Your task to perform on an android device: Clear the cart on costco. Image 0: 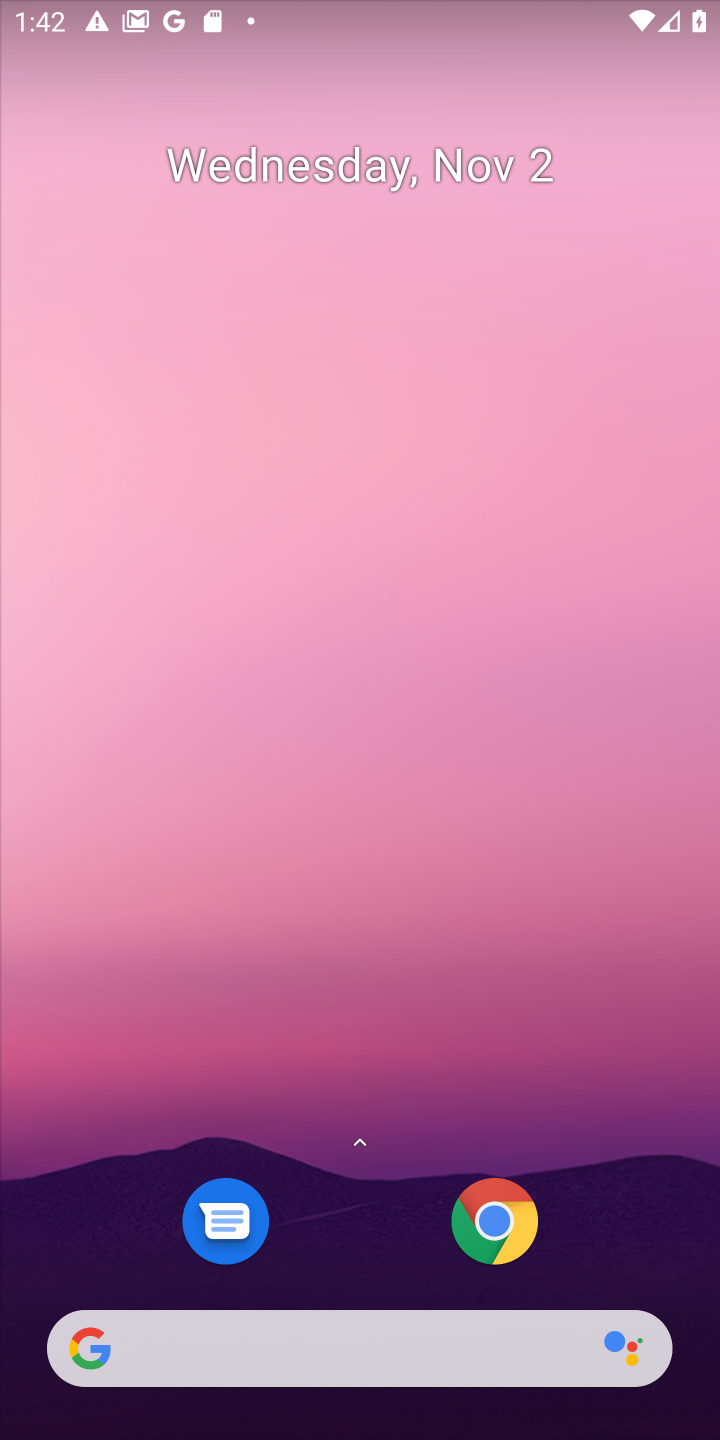
Step 0: click (396, 1367)
Your task to perform on an android device: Clear the cart on costco. Image 1: 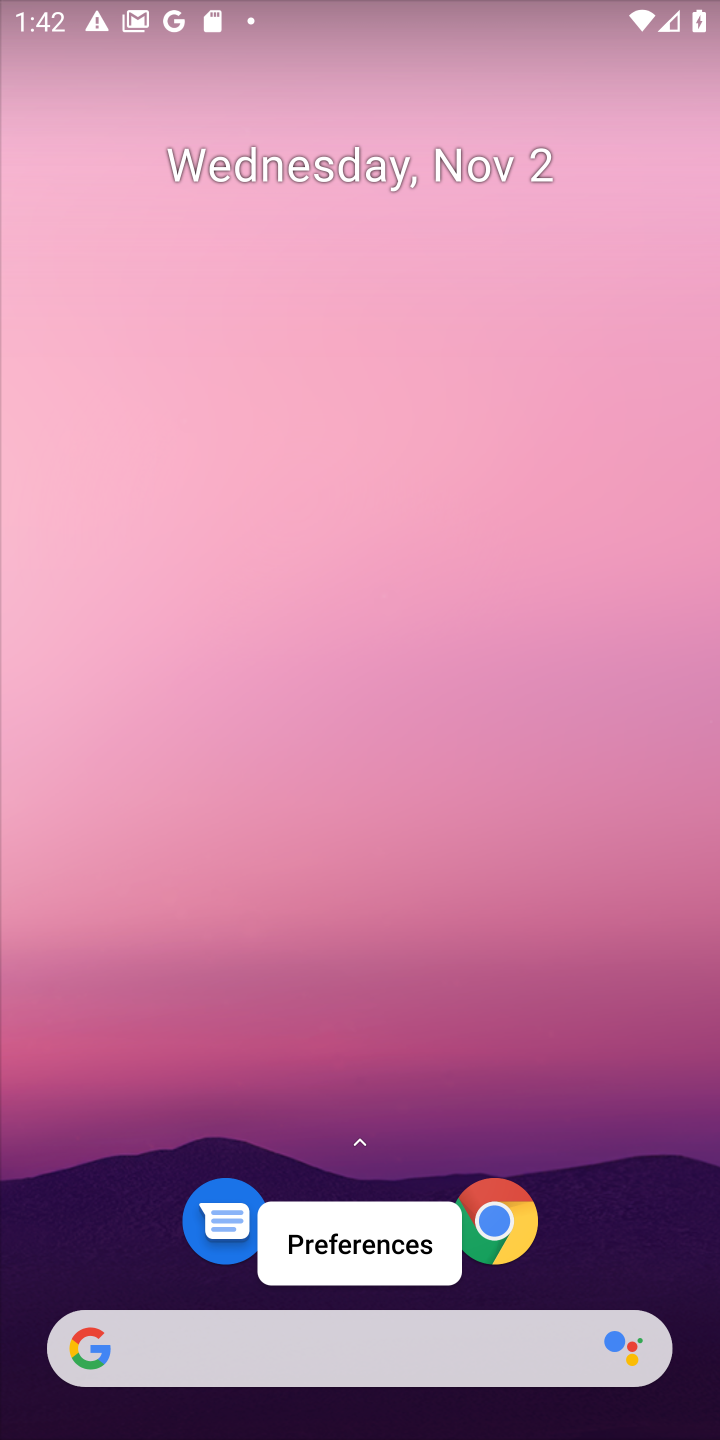
Step 1: click (339, 1357)
Your task to perform on an android device: Clear the cart on costco. Image 2: 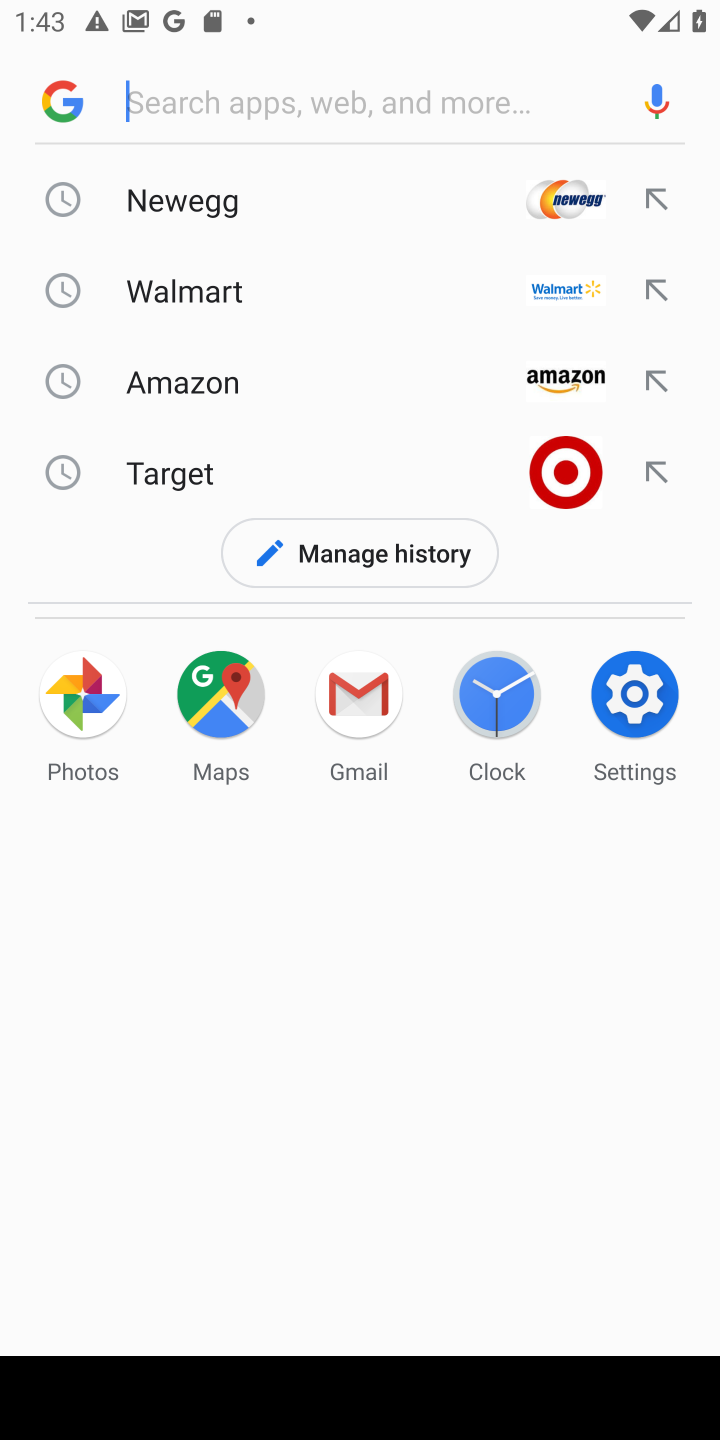
Step 2: type "costco.com"
Your task to perform on an android device: Clear the cart on costco. Image 3: 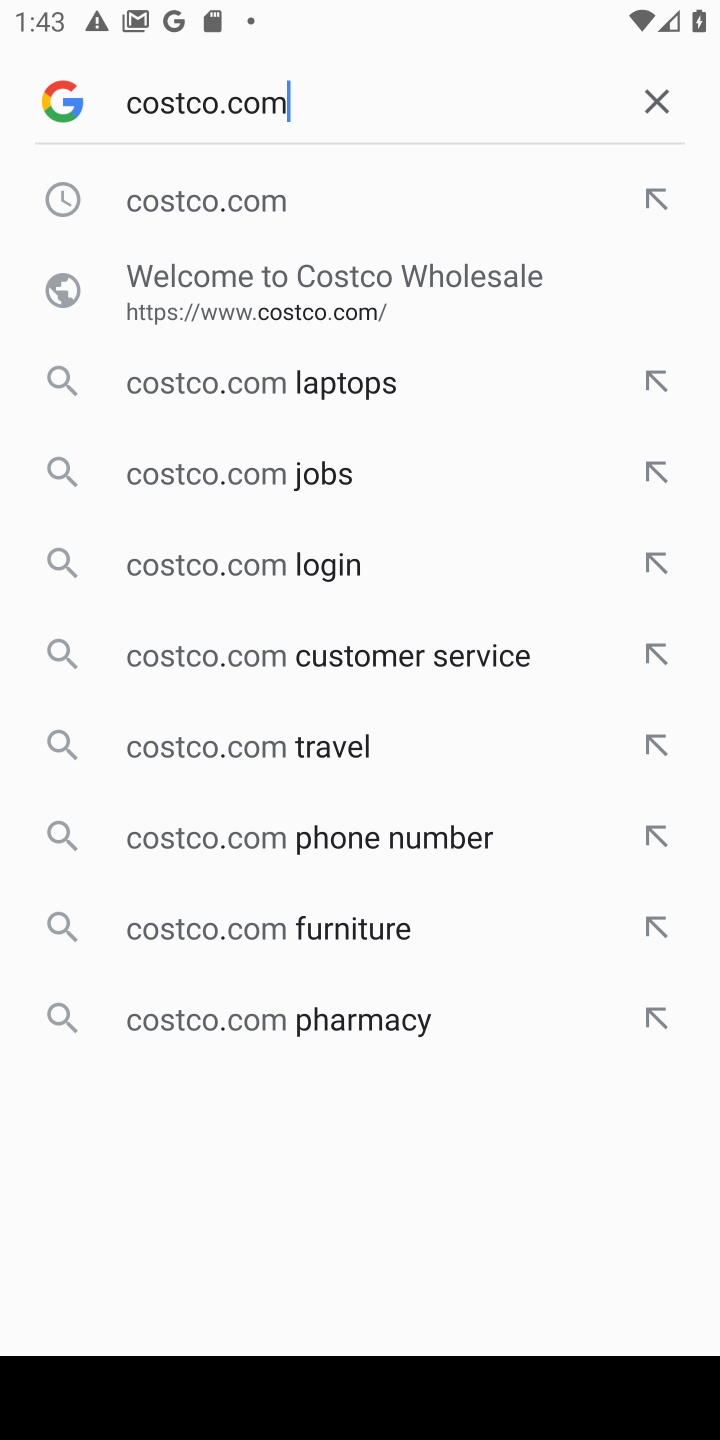
Step 3: click (287, 218)
Your task to perform on an android device: Clear the cart on costco. Image 4: 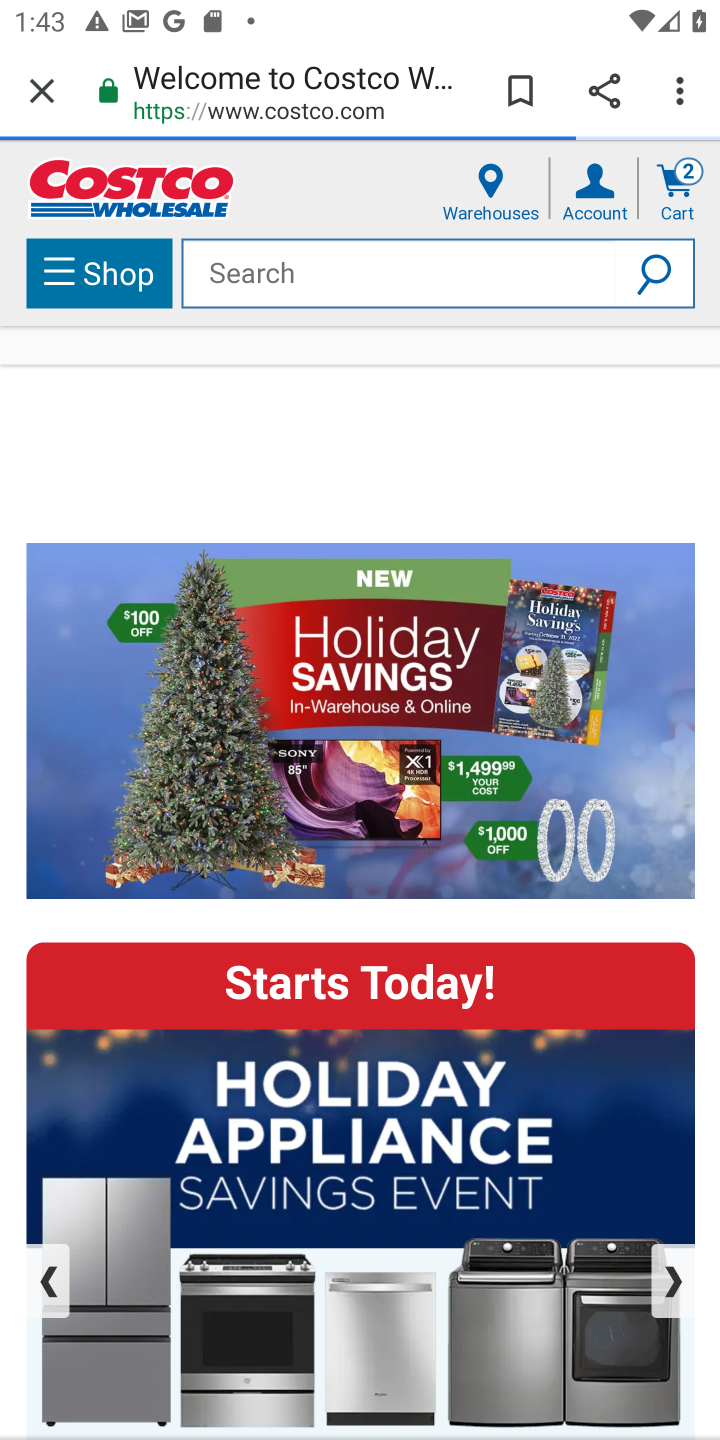
Step 4: click (687, 192)
Your task to perform on an android device: Clear the cart on costco. Image 5: 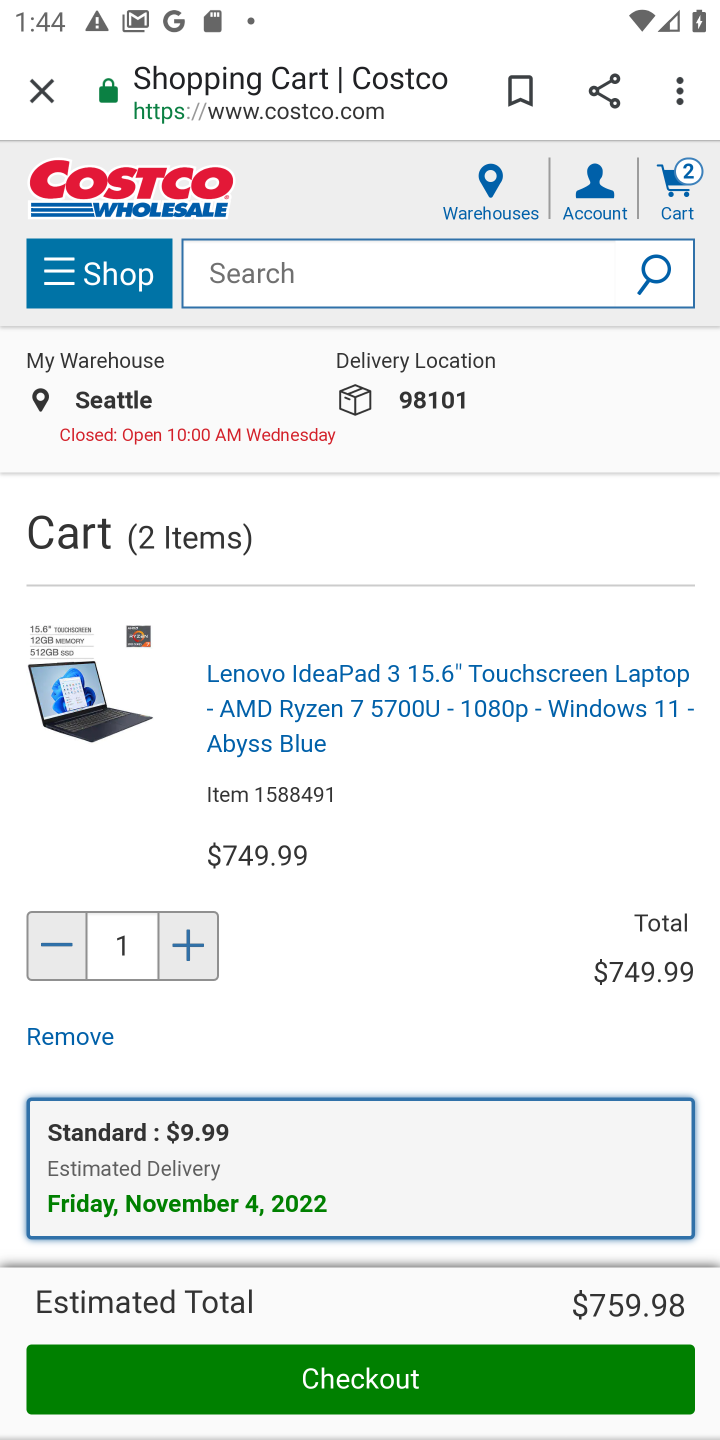
Step 5: click (49, 1047)
Your task to perform on an android device: Clear the cart on costco. Image 6: 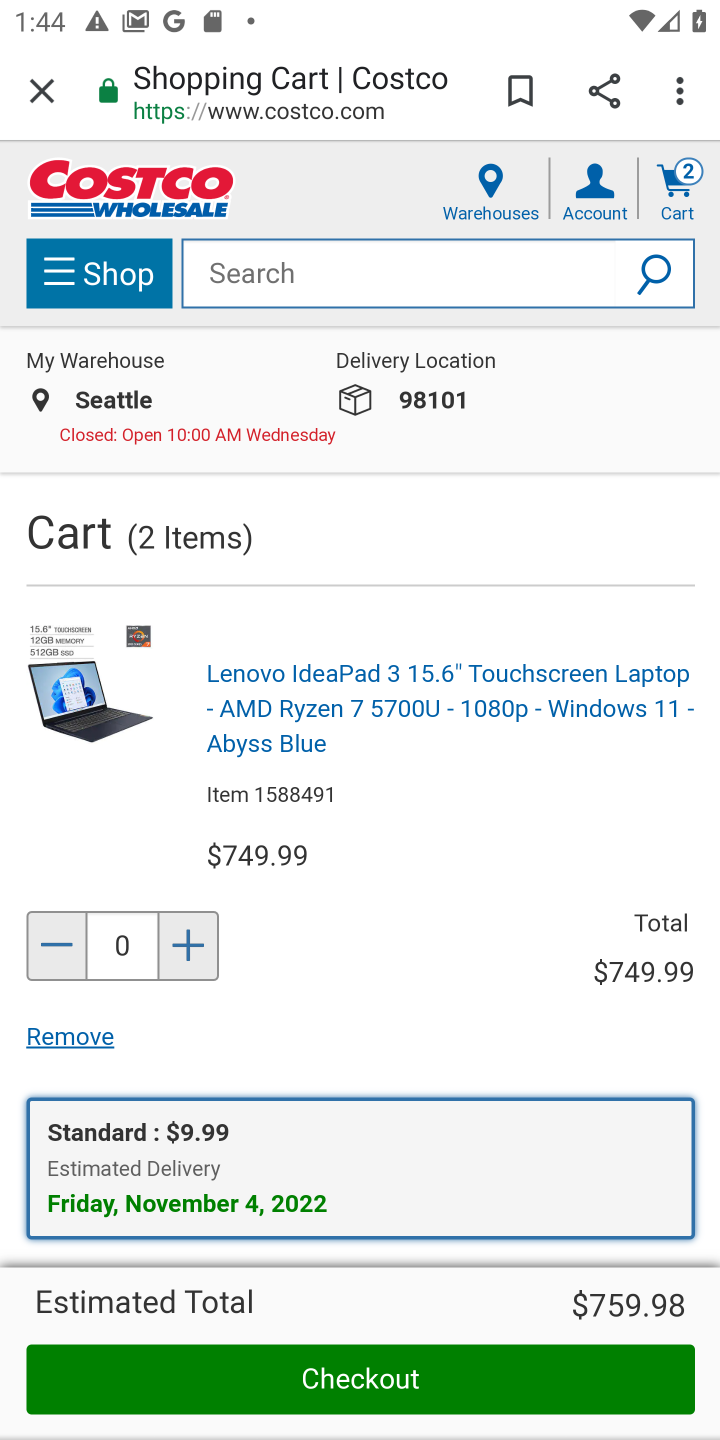
Step 6: click (49, 1047)
Your task to perform on an android device: Clear the cart on costco. Image 7: 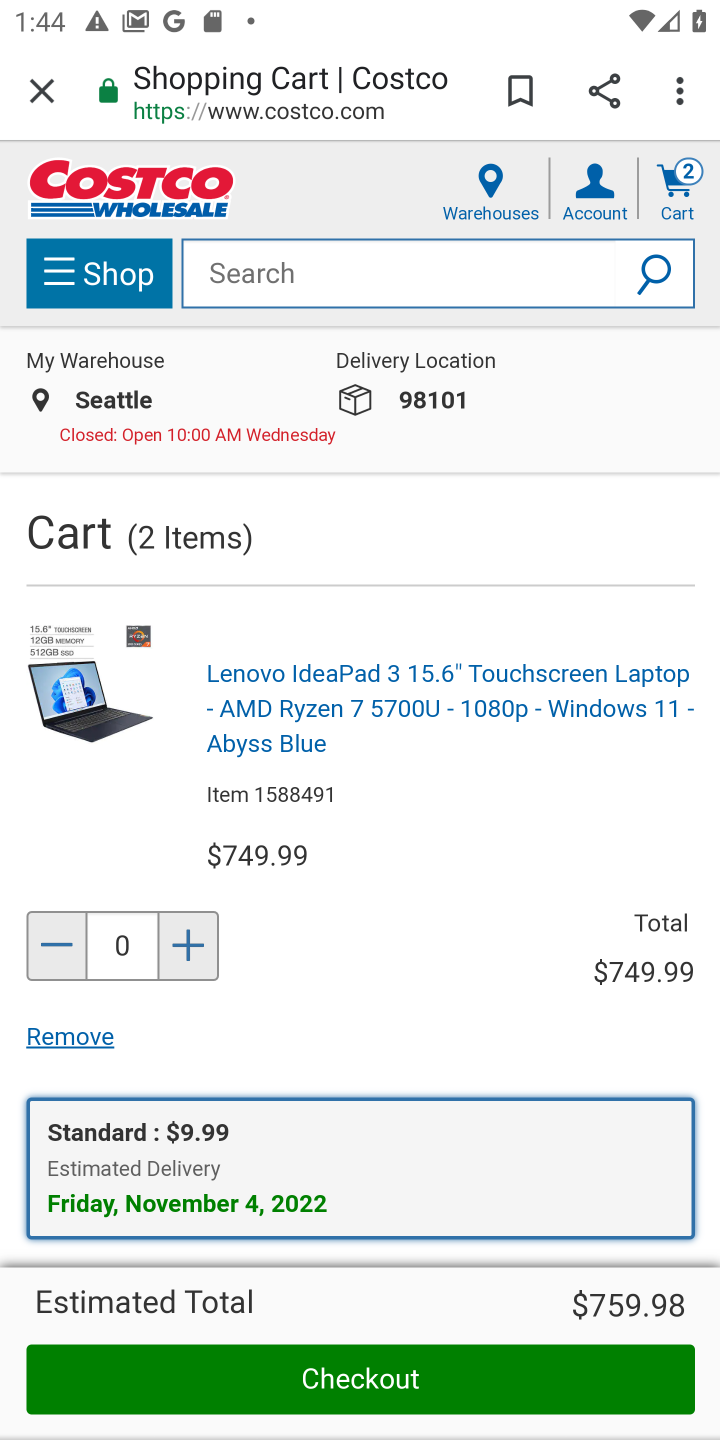
Step 7: click (66, 1034)
Your task to perform on an android device: Clear the cart on costco. Image 8: 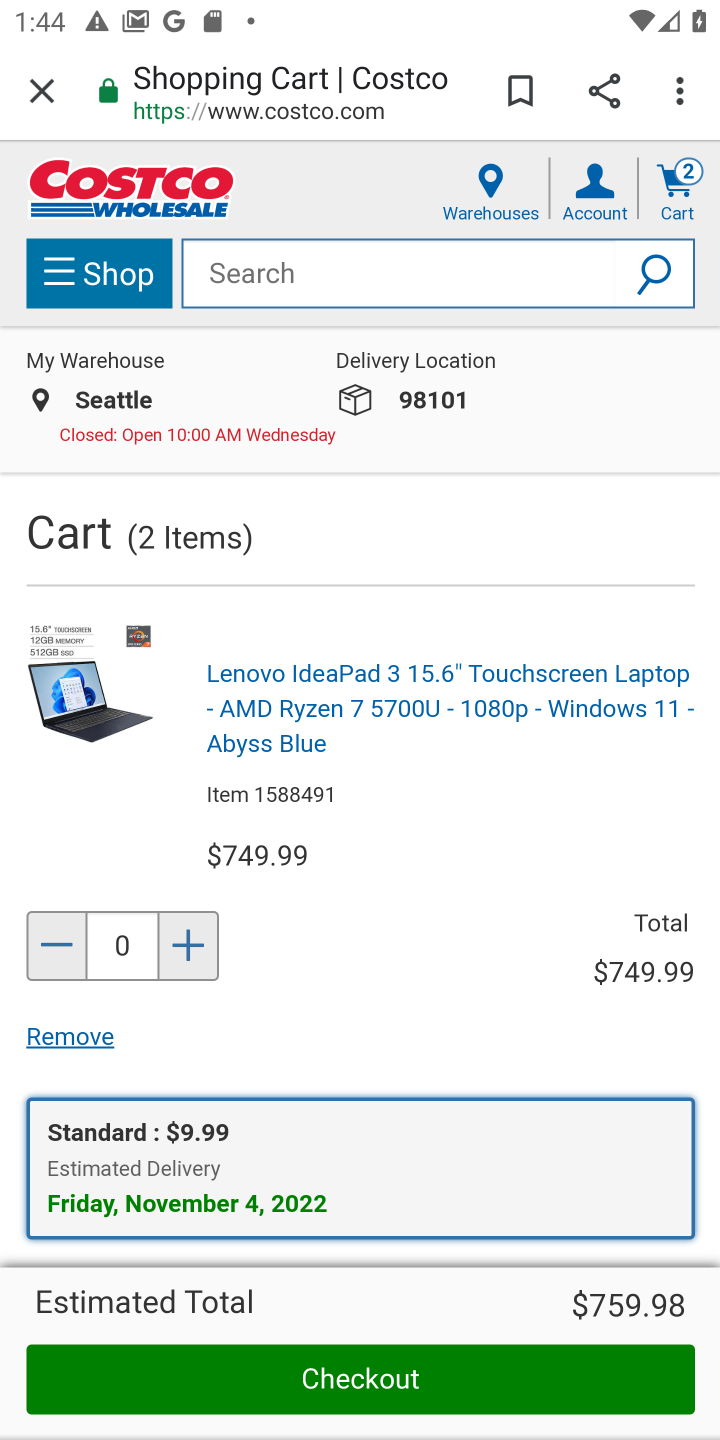
Step 8: click (66, 1034)
Your task to perform on an android device: Clear the cart on costco. Image 9: 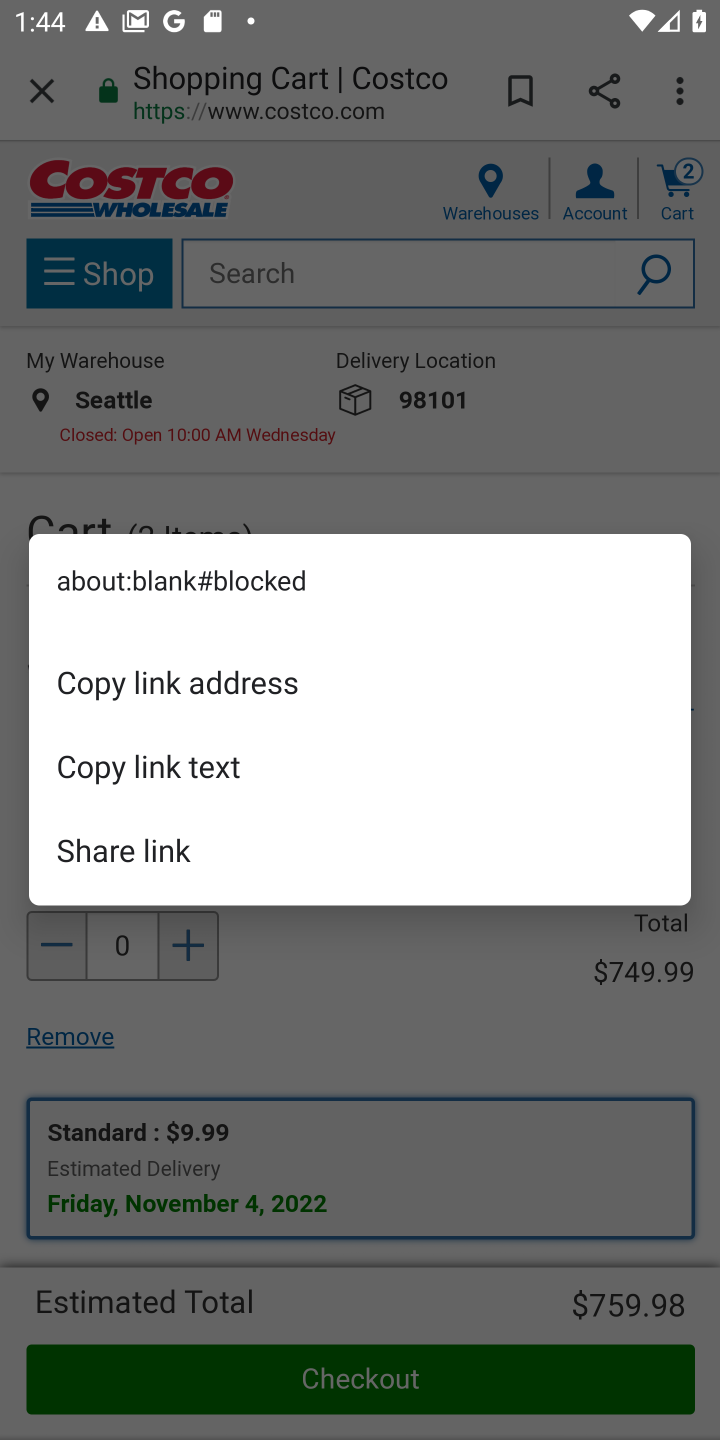
Step 9: click (249, 1033)
Your task to perform on an android device: Clear the cart on costco. Image 10: 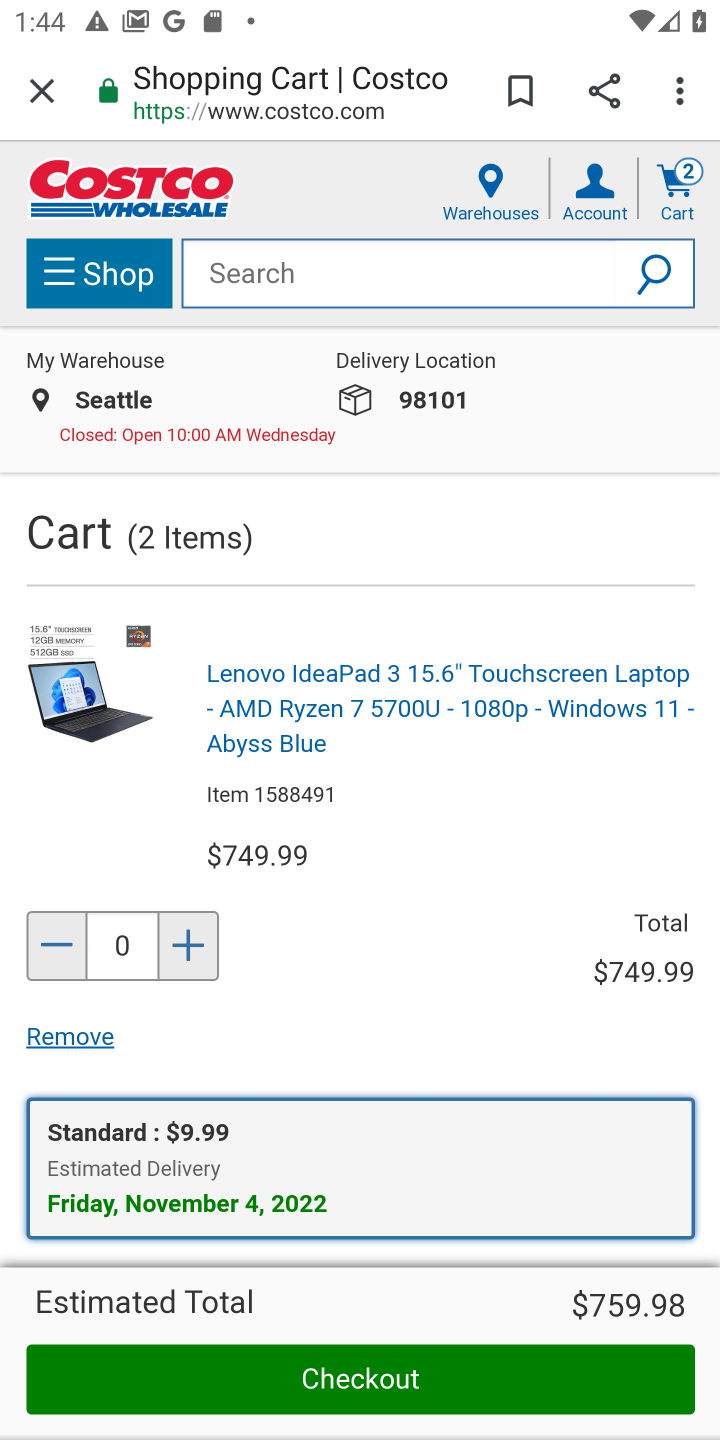
Step 10: click (57, 1042)
Your task to perform on an android device: Clear the cart on costco. Image 11: 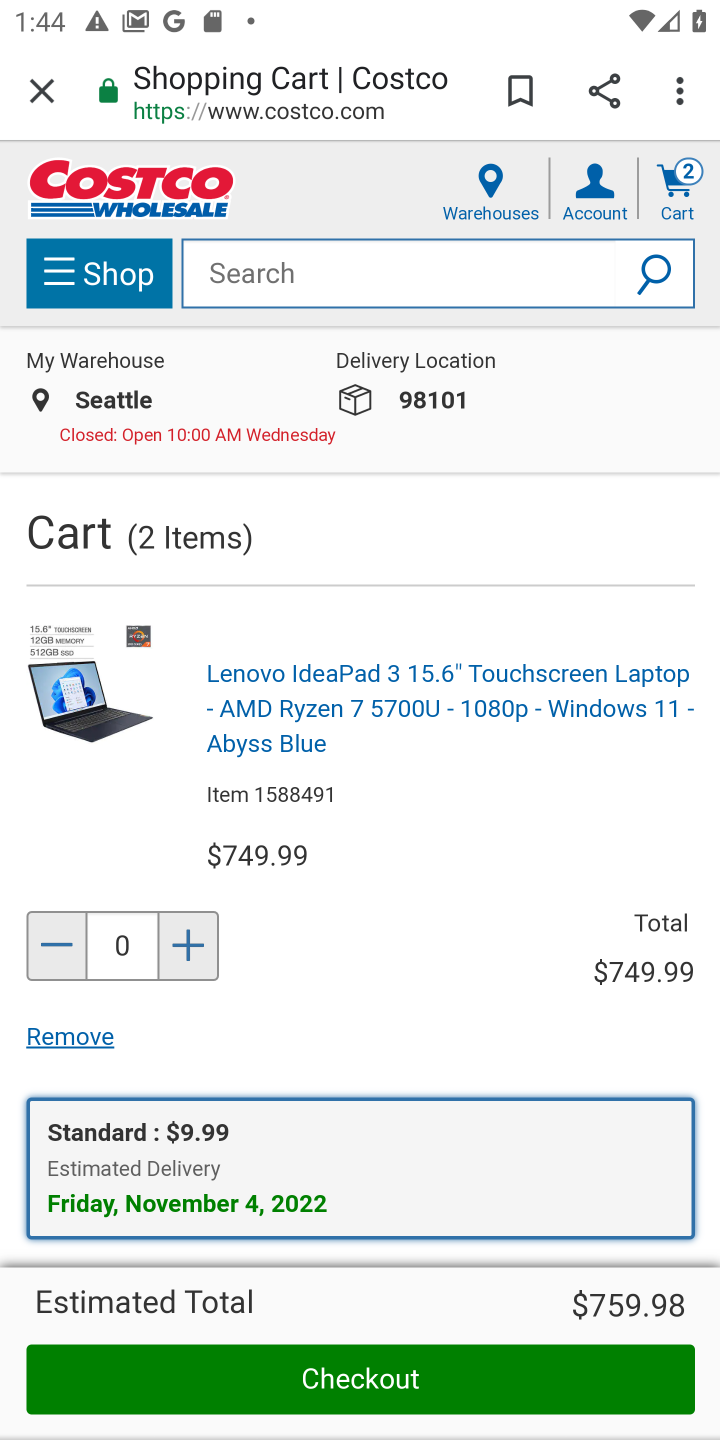
Step 11: click (57, 1042)
Your task to perform on an android device: Clear the cart on costco. Image 12: 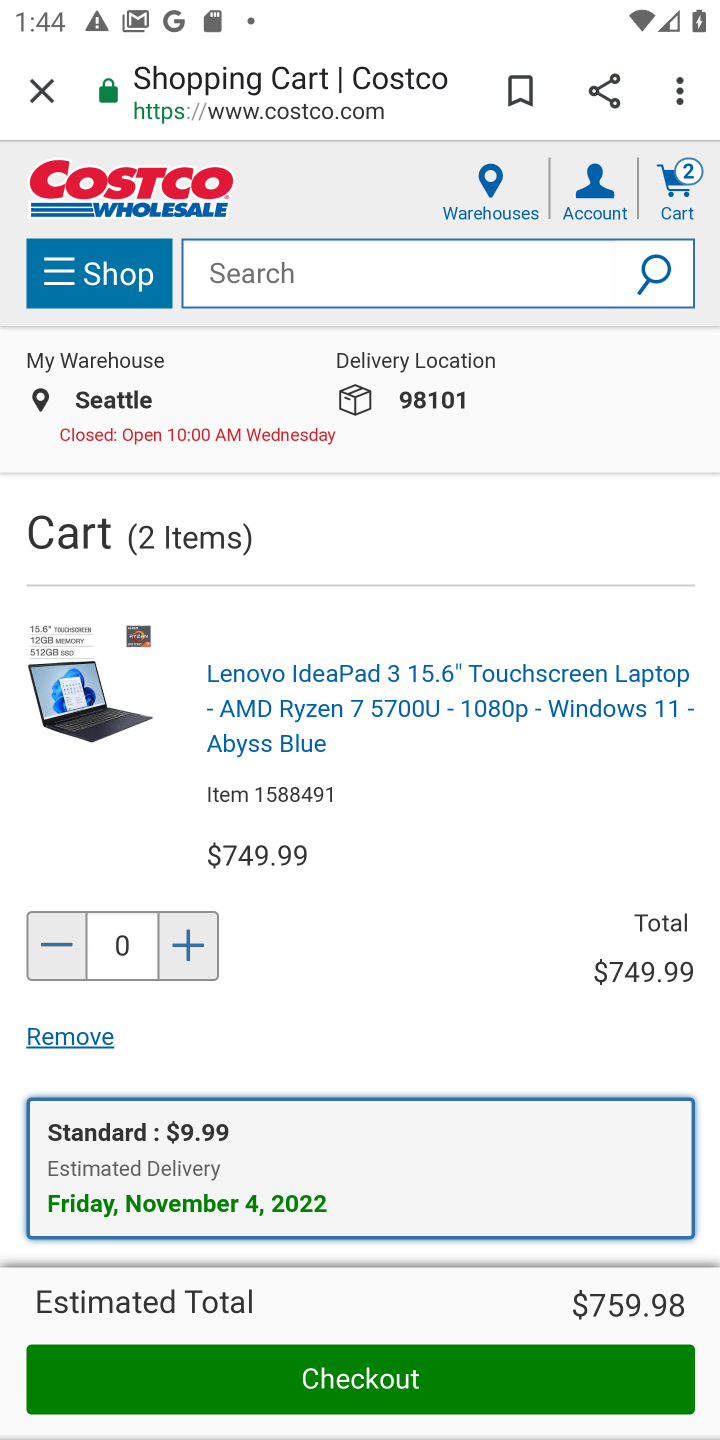
Step 12: task complete